Your task to perform on an android device: change timer sound Image 0: 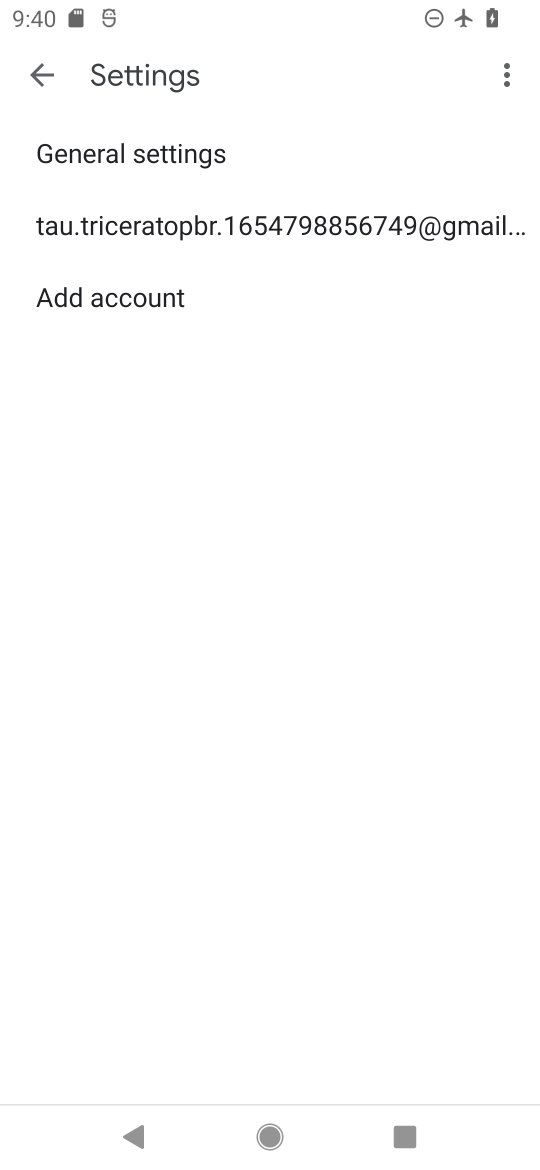
Step 0: press home button
Your task to perform on an android device: change timer sound Image 1: 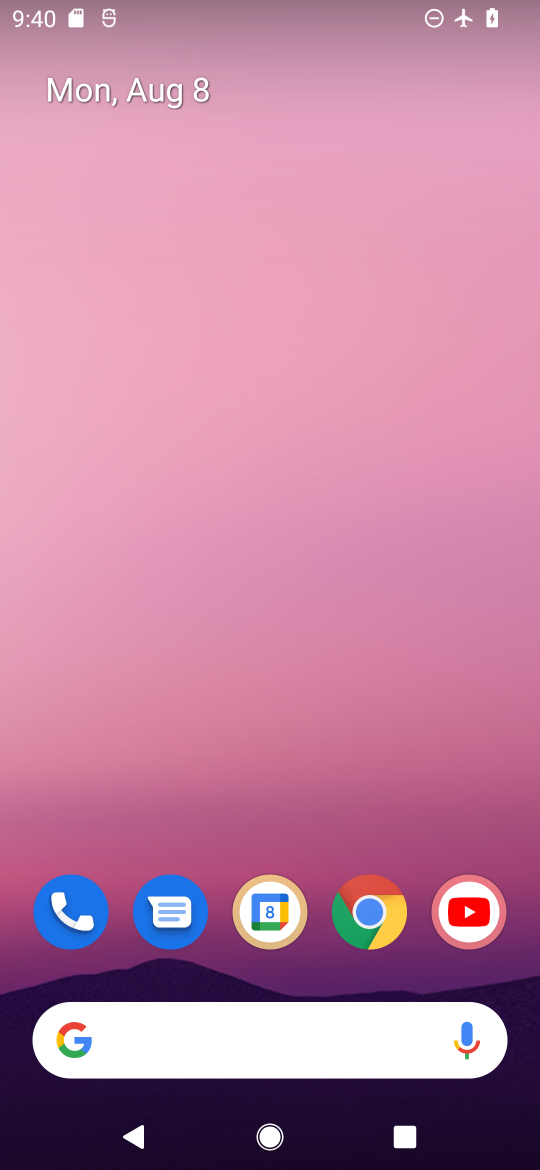
Step 1: drag from (538, 972) to (373, 105)
Your task to perform on an android device: change timer sound Image 2: 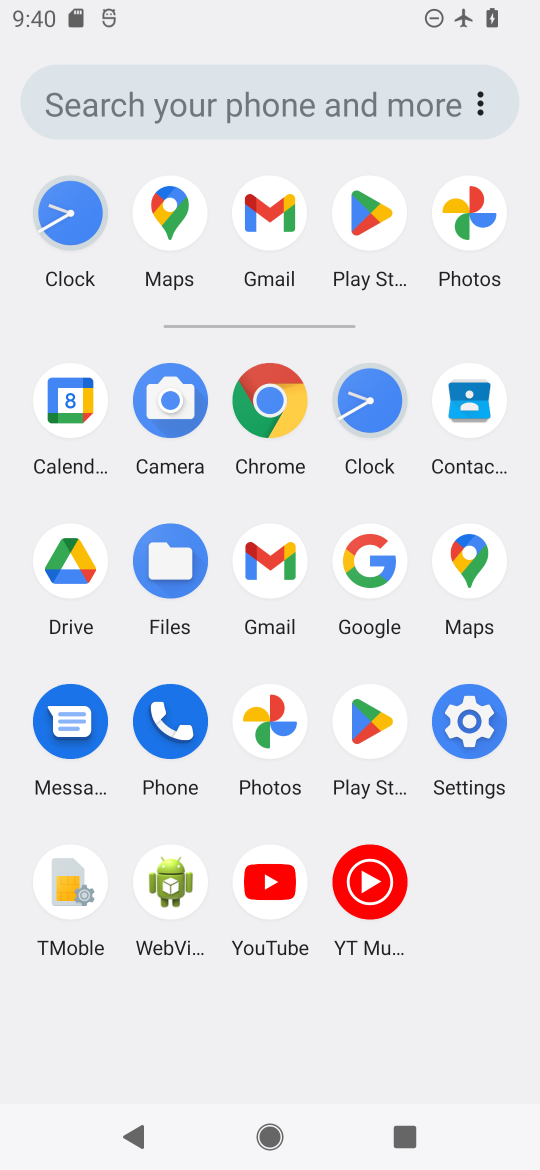
Step 2: click (388, 376)
Your task to perform on an android device: change timer sound Image 3: 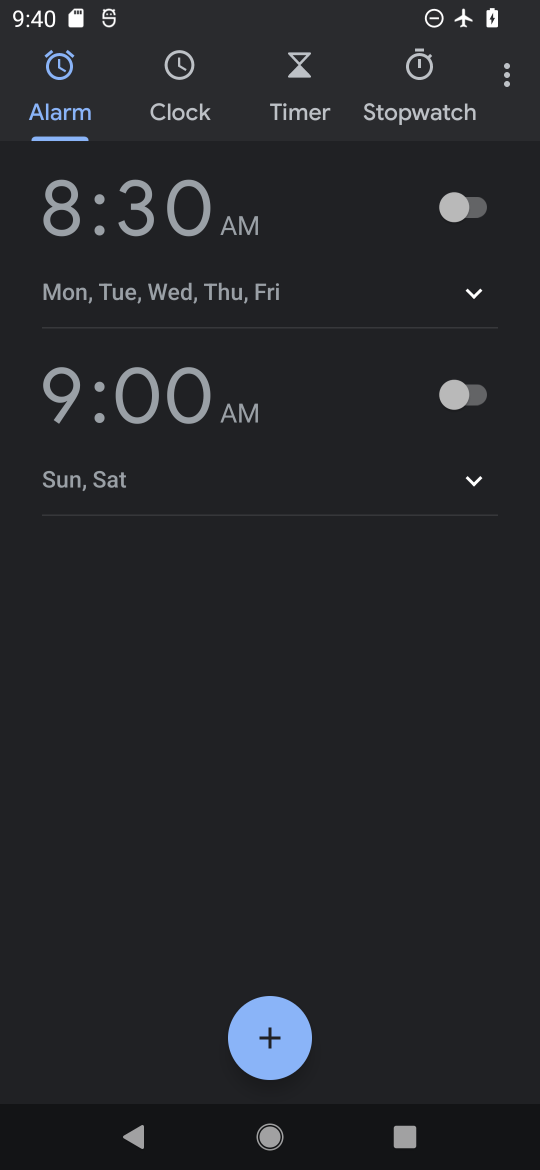
Step 3: click (514, 59)
Your task to perform on an android device: change timer sound Image 4: 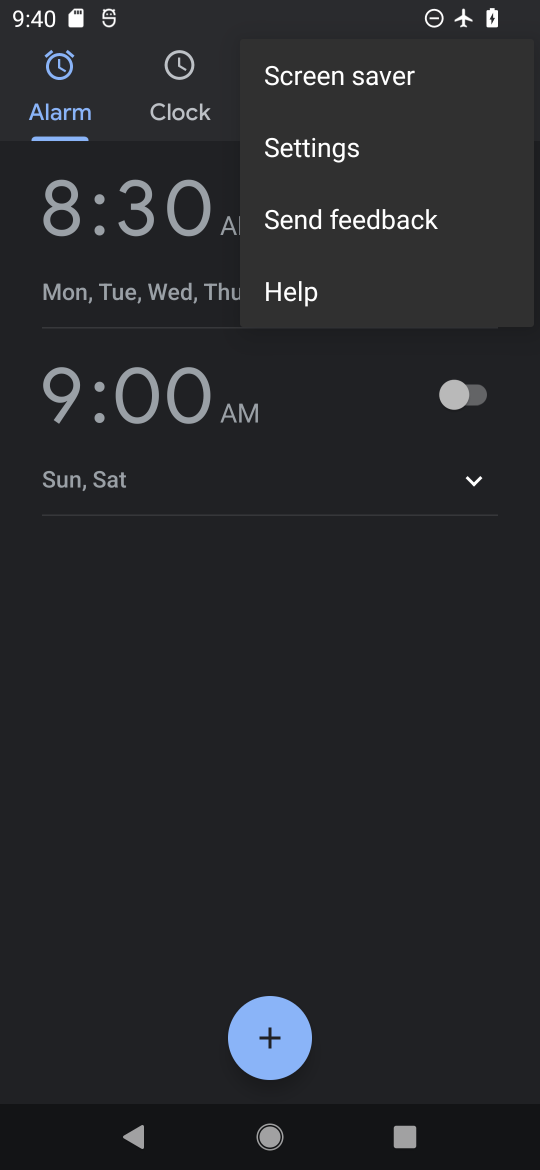
Step 4: click (312, 152)
Your task to perform on an android device: change timer sound Image 5: 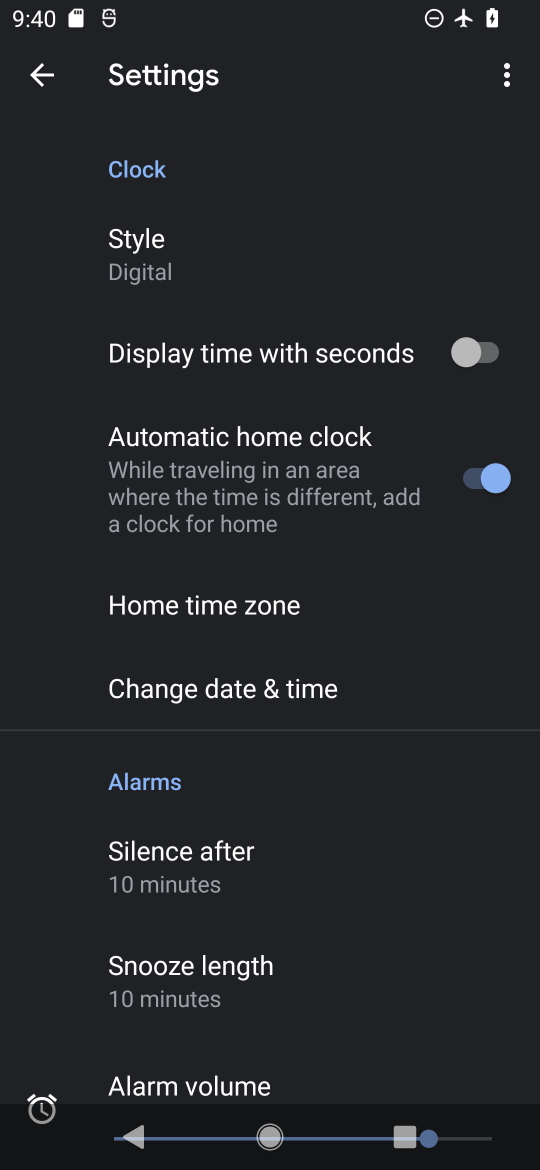
Step 5: drag from (167, 988) to (266, 63)
Your task to perform on an android device: change timer sound Image 6: 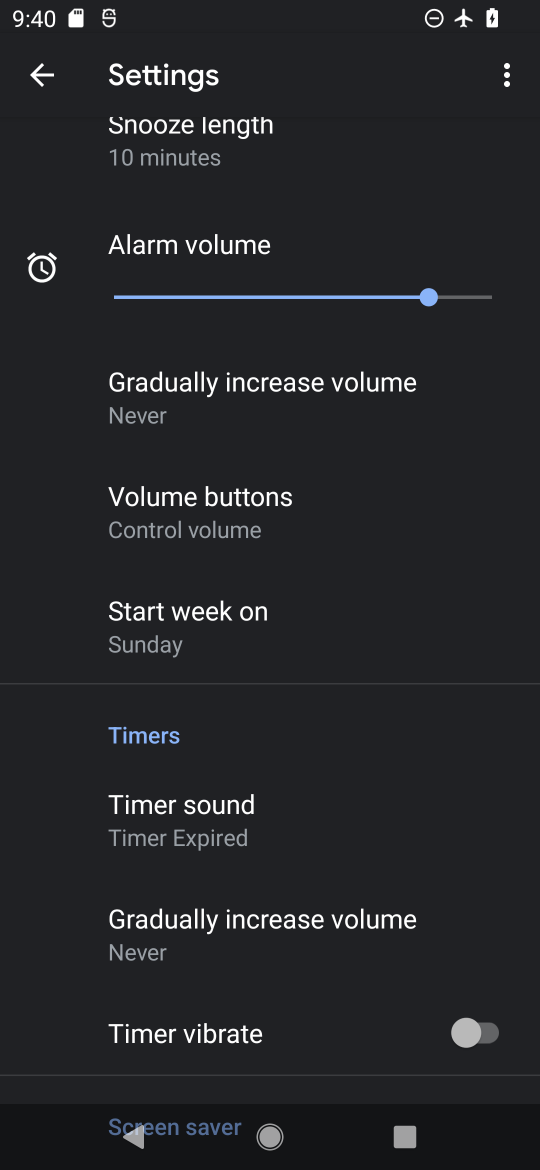
Step 6: click (209, 848)
Your task to perform on an android device: change timer sound Image 7: 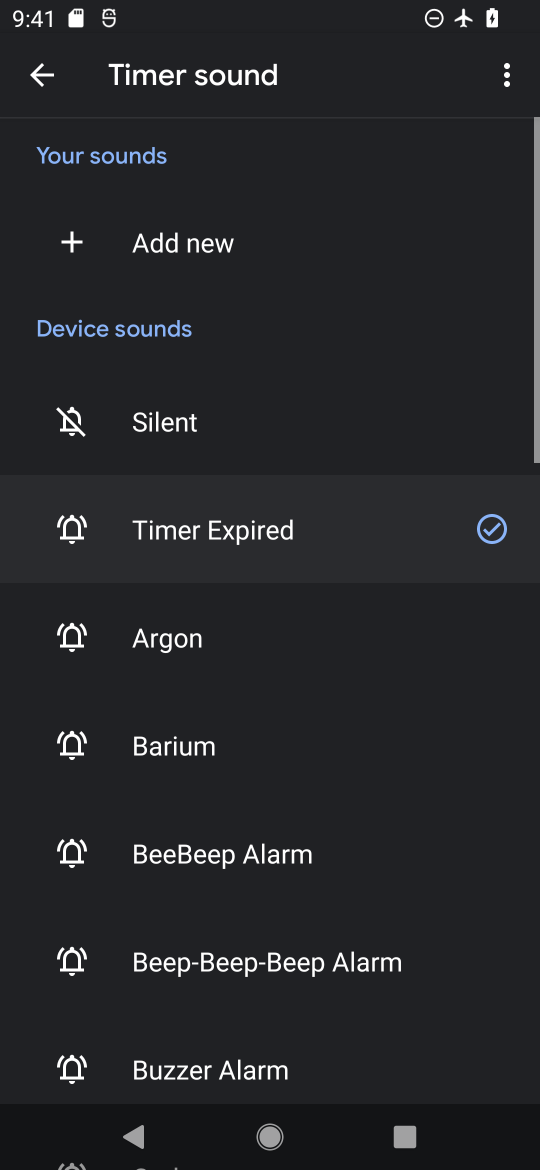
Step 7: click (198, 618)
Your task to perform on an android device: change timer sound Image 8: 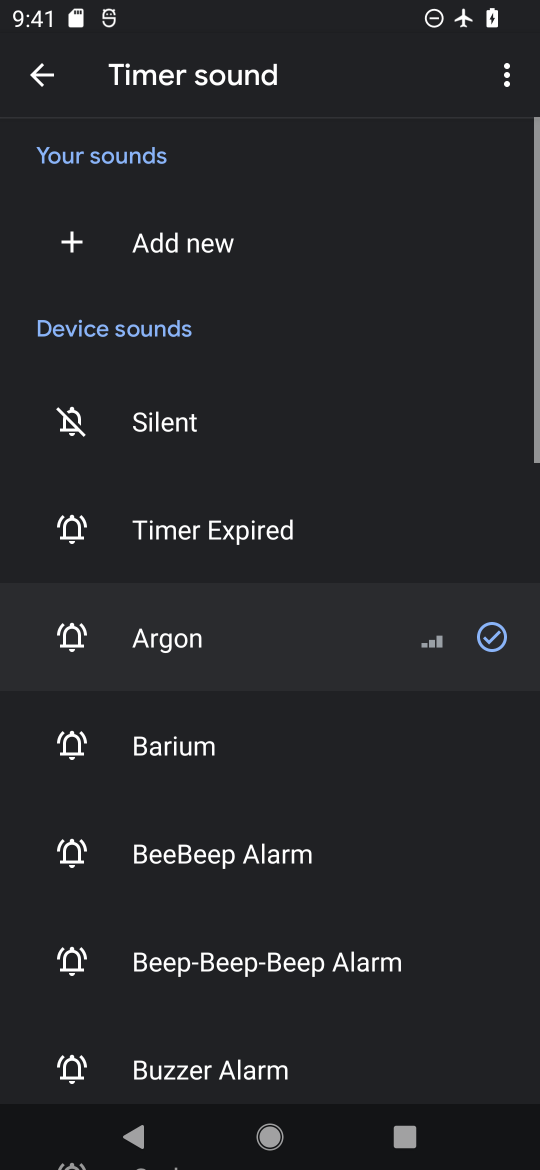
Step 8: task complete